Your task to perform on an android device: choose inbox layout in the gmail app Image 0: 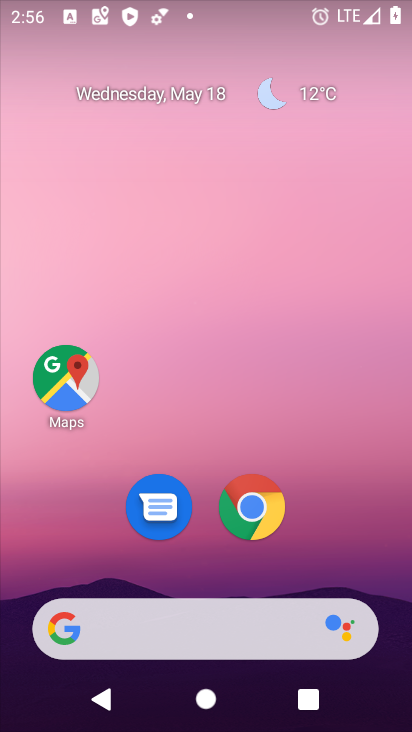
Step 0: drag from (393, 625) to (330, 161)
Your task to perform on an android device: choose inbox layout in the gmail app Image 1: 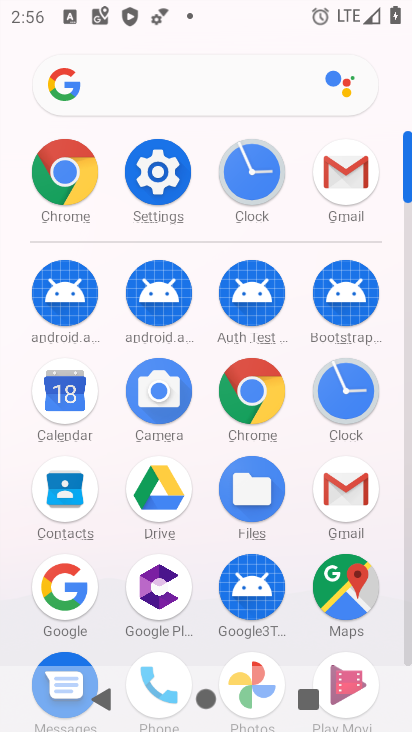
Step 1: click (405, 648)
Your task to perform on an android device: choose inbox layout in the gmail app Image 2: 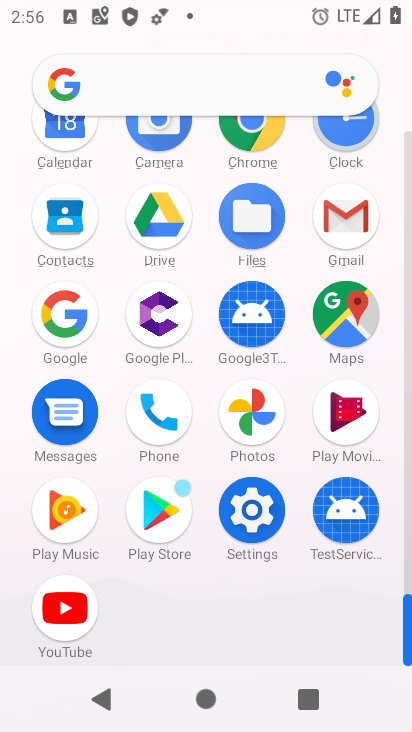
Step 2: click (344, 221)
Your task to perform on an android device: choose inbox layout in the gmail app Image 3: 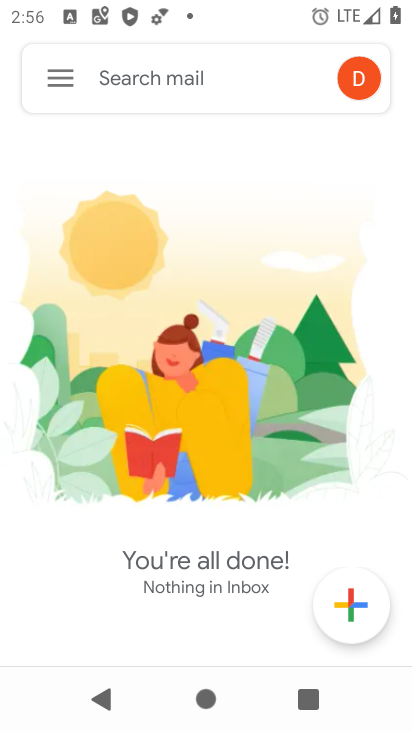
Step 3: click (58, 78)
Your task to perform on an android device: choose inbox layout in the gmail app Image 4: 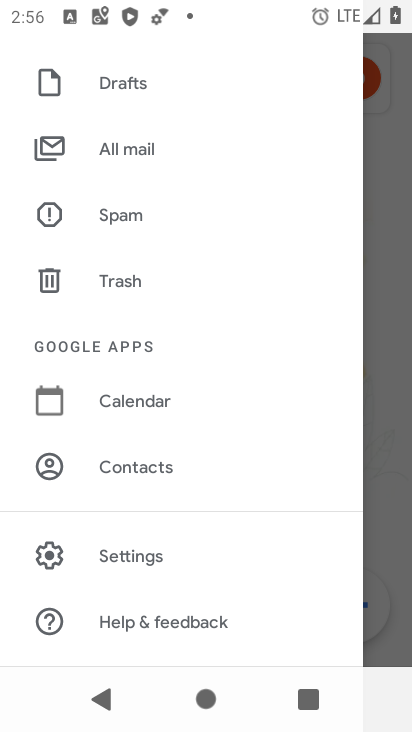
Step 4: click (131, 543)
Your task to perform on an android device: choose inbox layout in the gmail app Image 5: 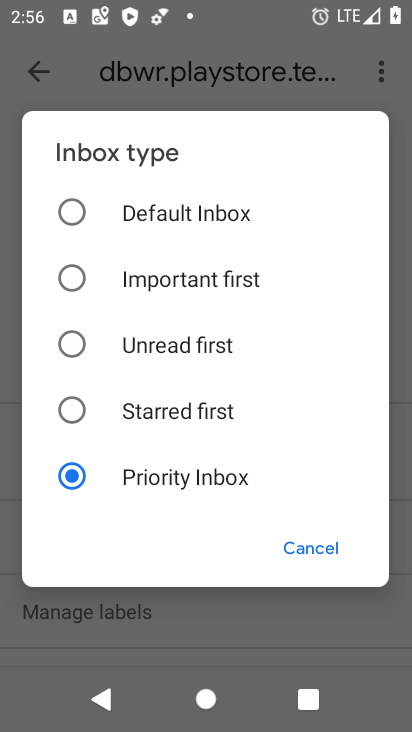
Step 5: click (66, 203)
Your task to perform on an android device: choose inbox layout in the gmail app Image 6: 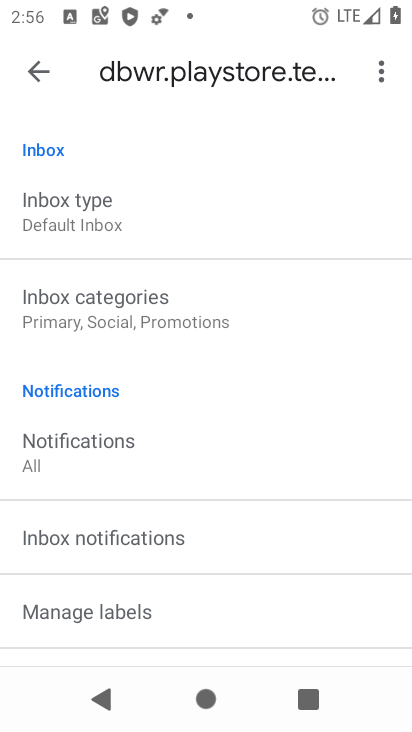
Step 6: task complete